Your task to perform on an android device: Go to accessibility settings Image 0: 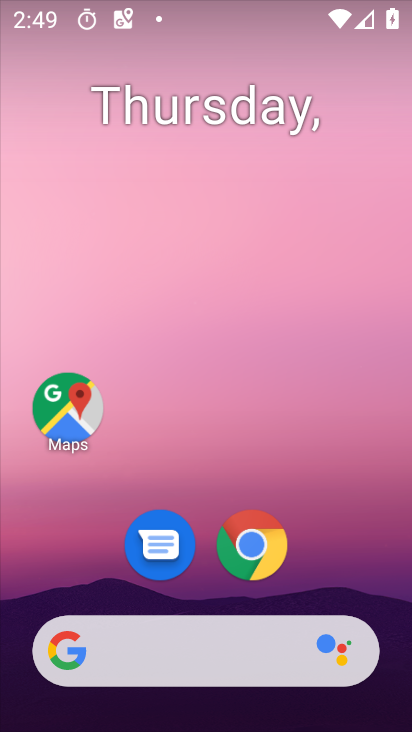
Step 0: drag from (222, 722) to (231, 121)
Your task to perform on an android device: Go to accessibility settings Image 1: 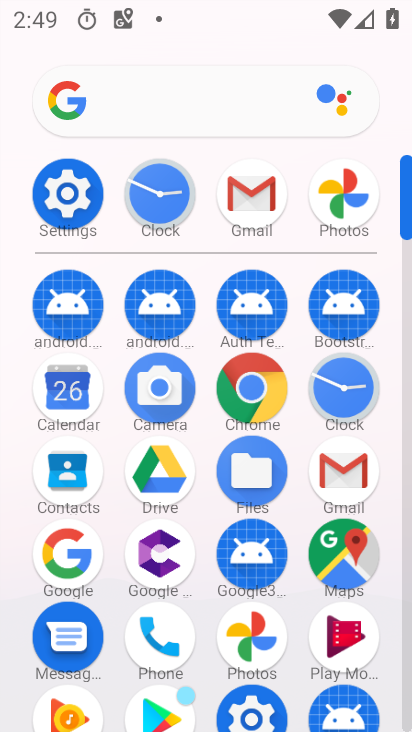
Step 1: click (67, 195)
Your task to perform on an android device: Go to accessibility settings Image 2: 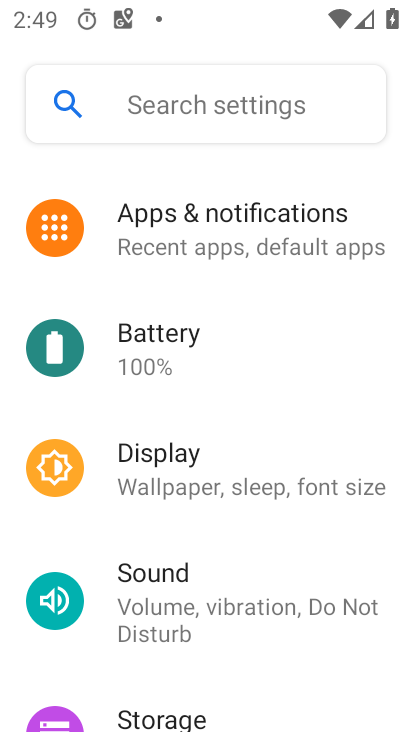
Step 2: drag from (202, 673) to (203, 214)
Your task to perform on an android device: Go to accessibility settings Image 3: 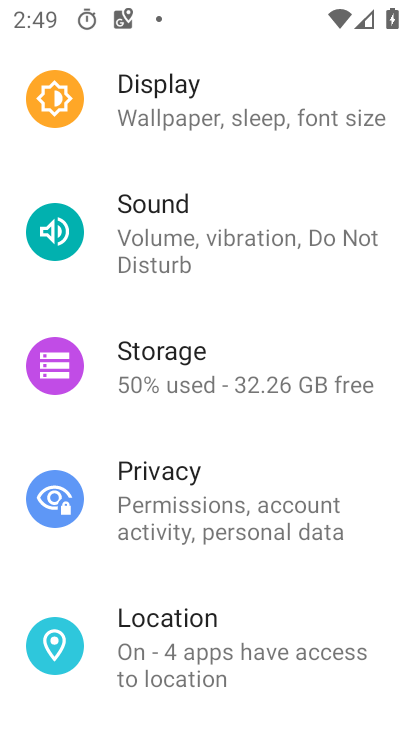
Step 3: drag from (250, 688) to (225, 175)
Your task to perform on an android device: Go to accessibility settings Image 4: 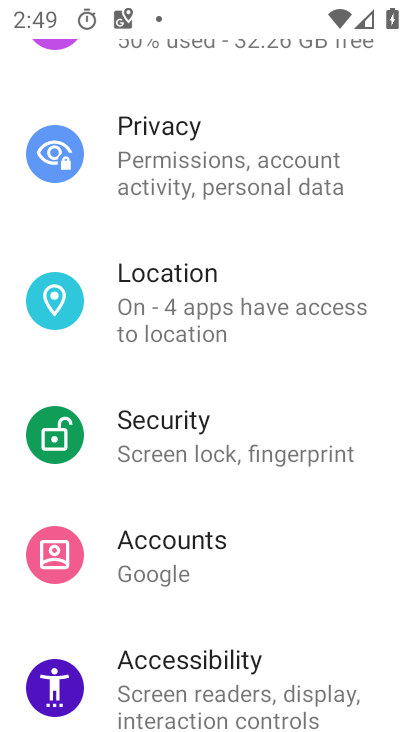
Step 4: click (196, 661)
Your task to perform on an android device: Go to accessibility settings Image 5: 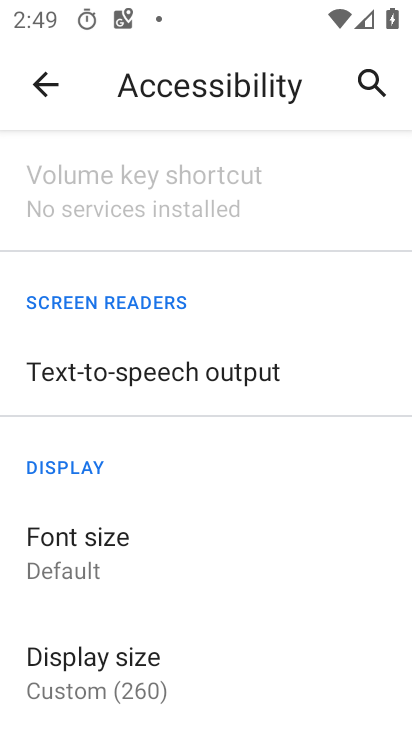
Step 5: task complete